Your task to perform on an android device: Open Youtube and go to "Your channel" Image 0: 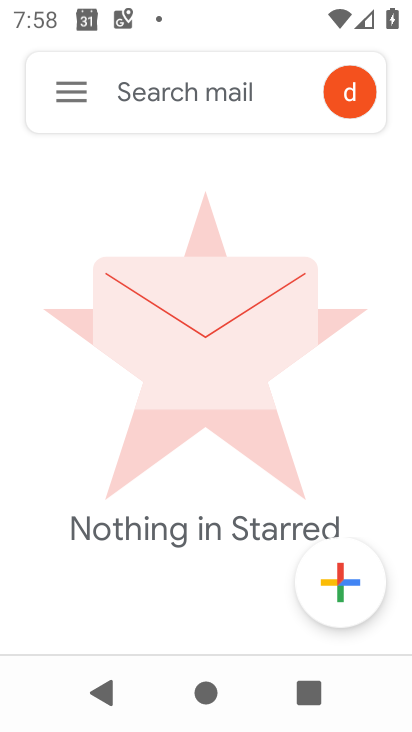
Step 0: press home button
Your task to perform on an android device: Open Youtube and go to "Your channel" Image 1: 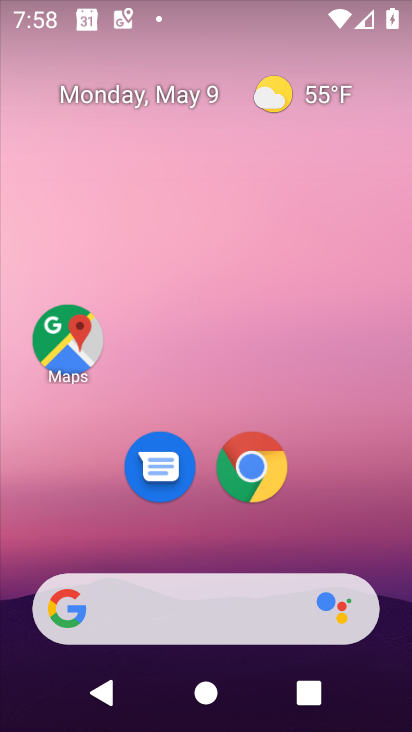
Step 1: drag from (359, 549) to (347, 9)
Your task to perform on an android device: Open Youtube and go to "Your channel" Image 2: 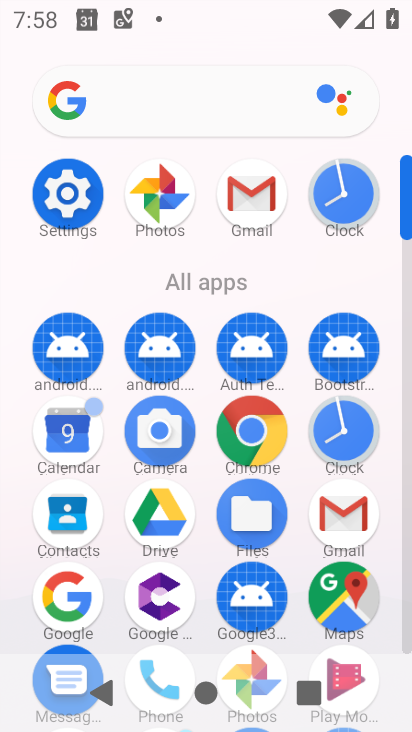
Step 2: click (407, 558)
Your task to perform on an android device: Open Youtube and go to "Your channel" Image 3: 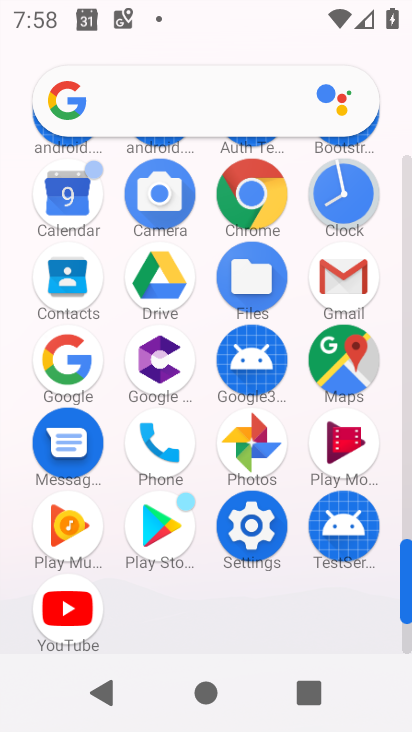
Step 3: click (61, 618)
Your task to perform on an android device: Open Youtube and go to "Your channel" Image 4: 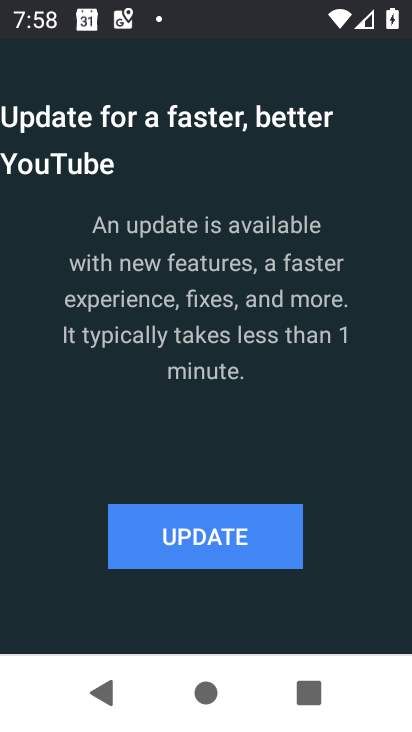
Step 4: click (209, 555)
Your task to perform on an android device: Open Youtube and go to "Your channel" Image 5: 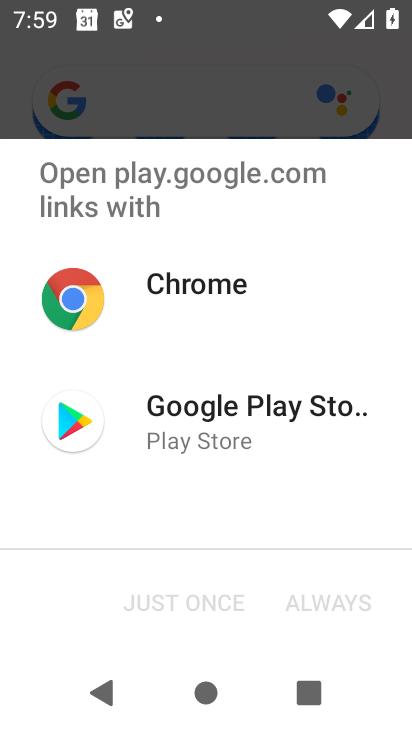
Step 5: click (153, 432)
Your task to perform on an android device: Open Youtube and go to "Your channel" Image 6: 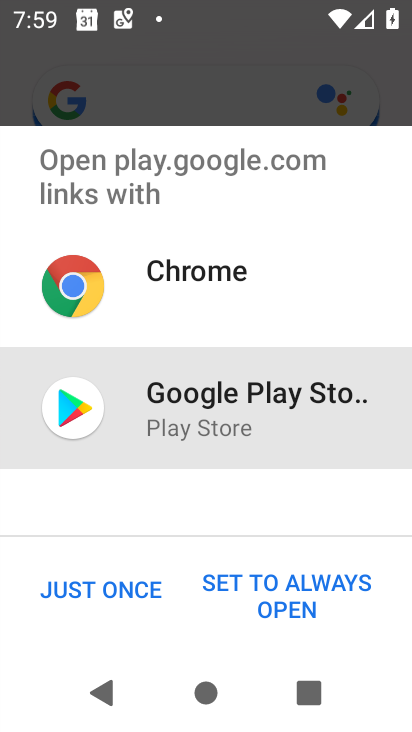
Step 6: click (121, 574)
Your task to perform on an android device: Open Youtube and go to "Your channel" Image 7: 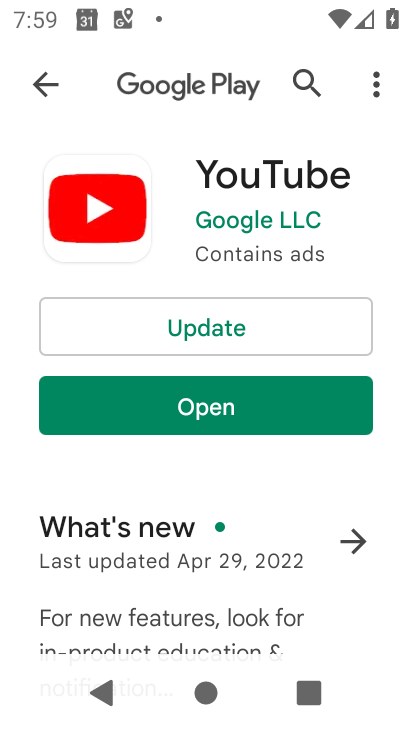
Step 7: click (202, 325)
Your task to perform on an android device: Open Youtube and go to "Your channel" Image 8: 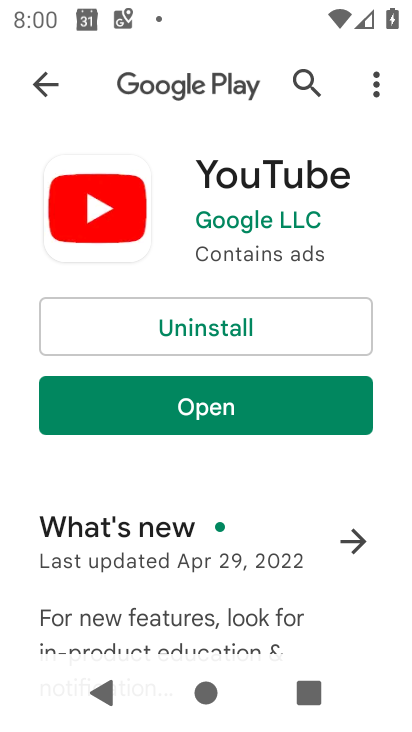
Step 8: click (189, 388)
Your task to perform on an android device: Open Youtube and go to "Your channel" Image 9: 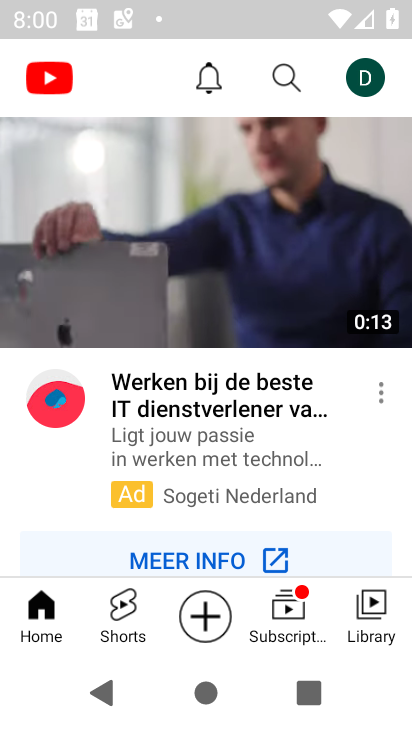
Step 9: click (362, 92)
Your task to perform on an android device: Open Youtube and go to "Your channel" Image 10: 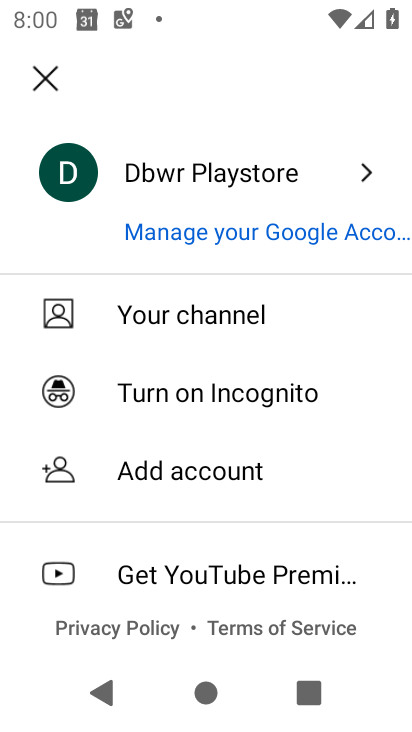
Step 10: click (166, 314)
Your task to perform on an android device: Open Youtube and go to "Your channel" Image 11: 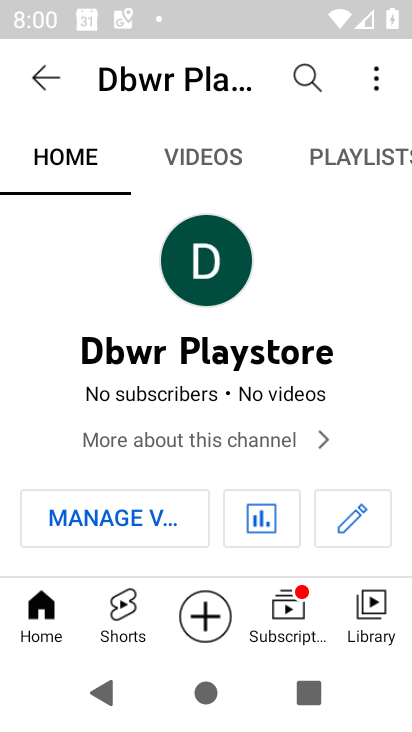
Step 11: task complete